Your task to perform on an android device: turn off sleep mode Image 0: 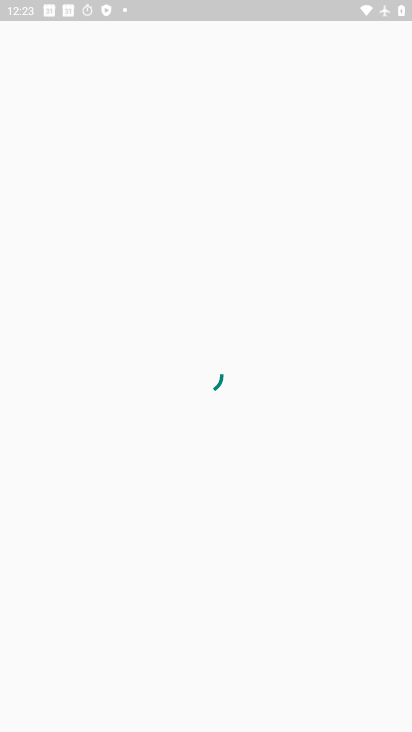
Step 0: press home button
Your task to perform on an android device: turn off sleep mode Image 1: 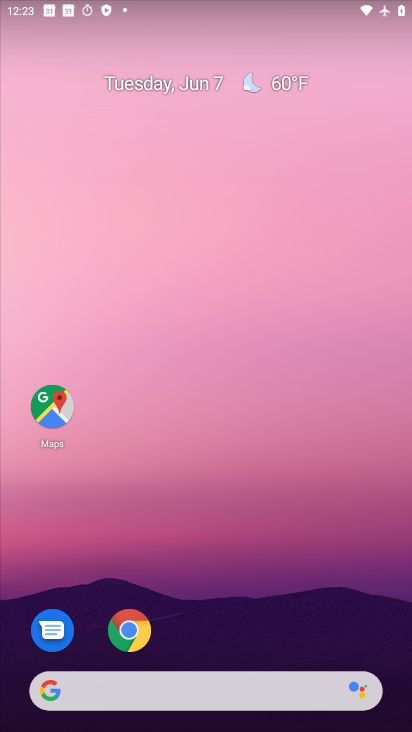
Step 1: drag from (398, 658) to (206, 32)
Your task to perform on an android device: turn off sleep mode Image 2: 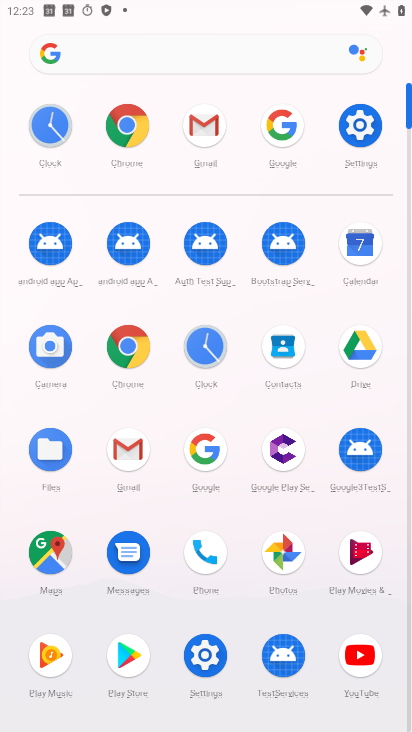
Step 2: click (354, 123)
Your task to perform on an android device: turn off sleep mode Image 3: 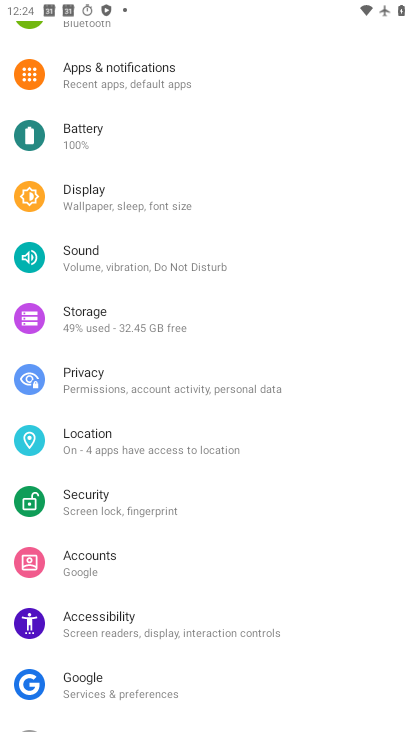
Step 3: task complete